Your task to perform on an android device: turn off picture-in-picture Image 0: 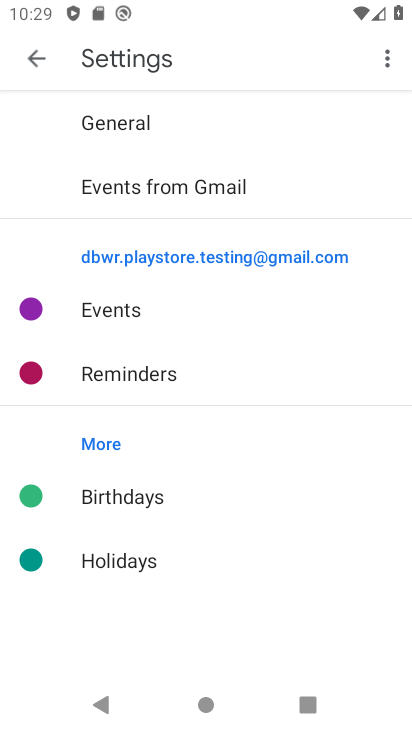
Step 0: press home button
Your task to perform on an android device: turn off picture-in-picture Image 1: 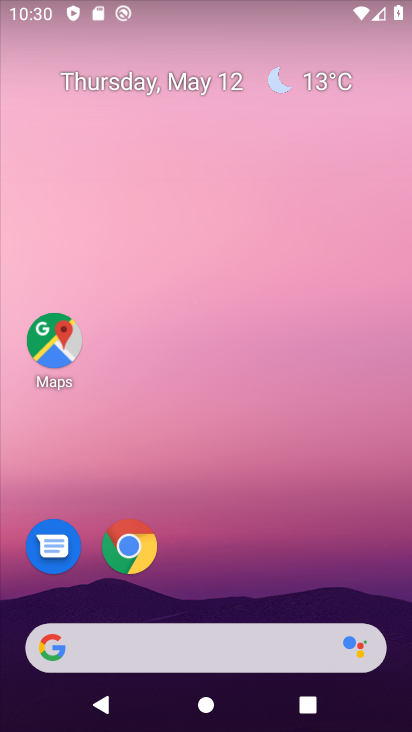
Step 1: drag from (242, 670) to (215, 153)
Your task to perform on an android device: turn off picture-in-picture Image 2: 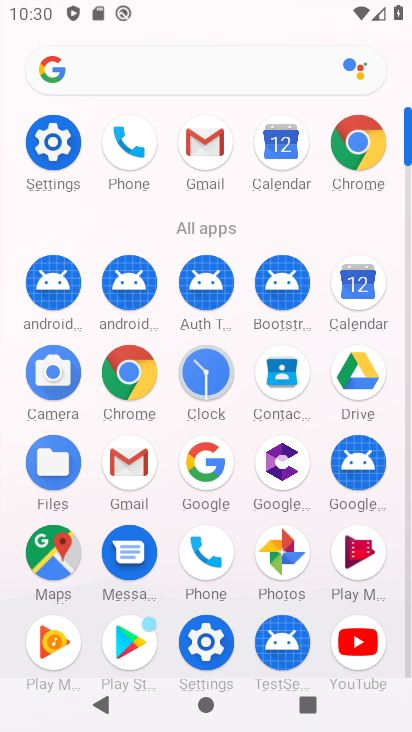
Step 2: click (49, 158)
Your task to perform on an android device: turn off picture-in-picture Image 3: 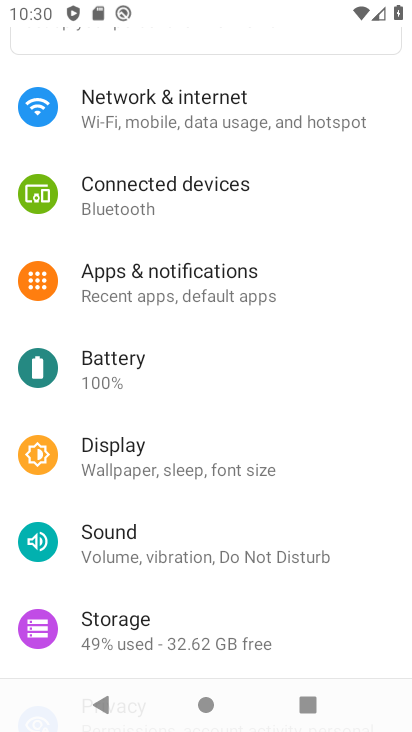
Step 3: drag from (155, 103) to (171, 250)
Your task to perform on an android device: turn off picture-in-picture Image 4: 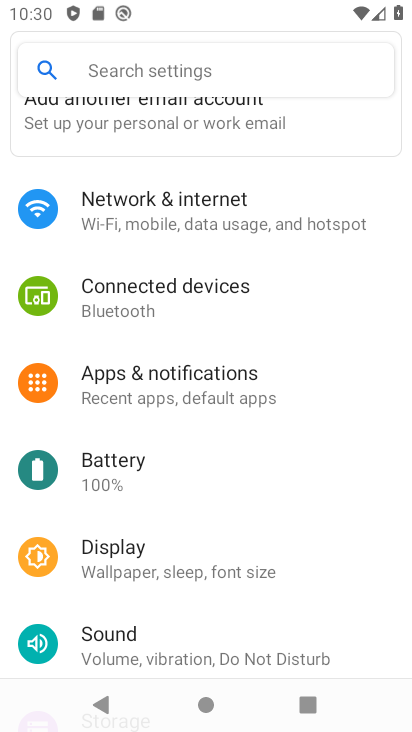
Step 4: click (138, 79)
Your task to perform on an android device: turn off picture-in-picture Image 5: 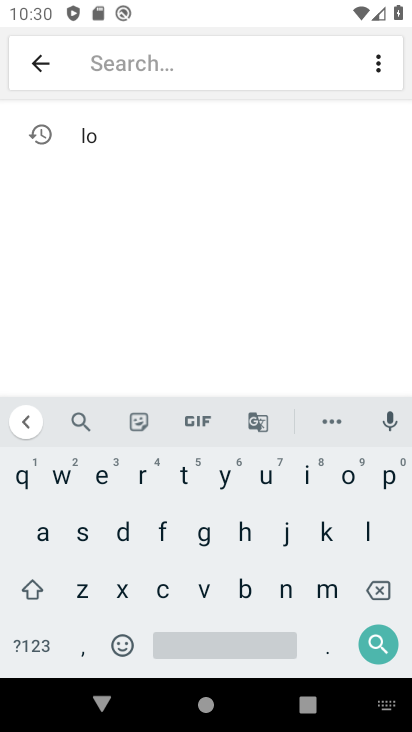
Step 5: click (378, 484)
Your task to perform on an android device: turn off picture-in-picture Image 6: 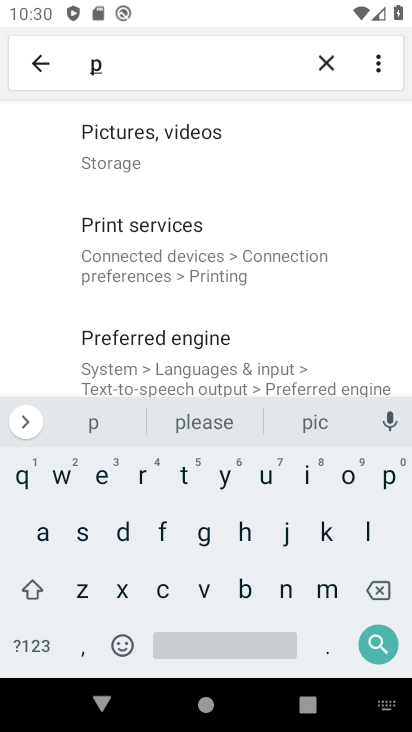
Step 6: click (302, 472)
Your task to perform on an android device: turn off picture-in-picture Image 7: 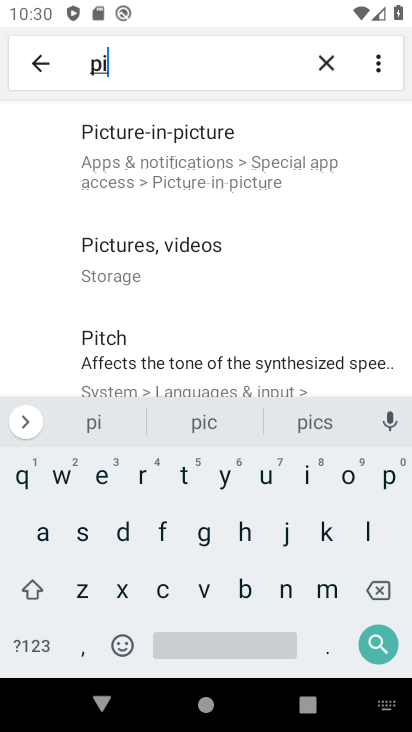
Step 7: click (196, 185)
Your task to perform on an android device: turn off picture-in-picture Image 8: 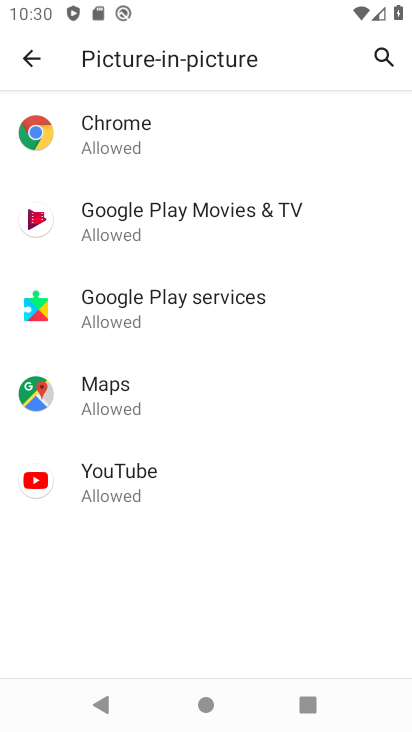
Step 8: task complete